Your task to perform on an android device: Open Yahoo.com Image 0: 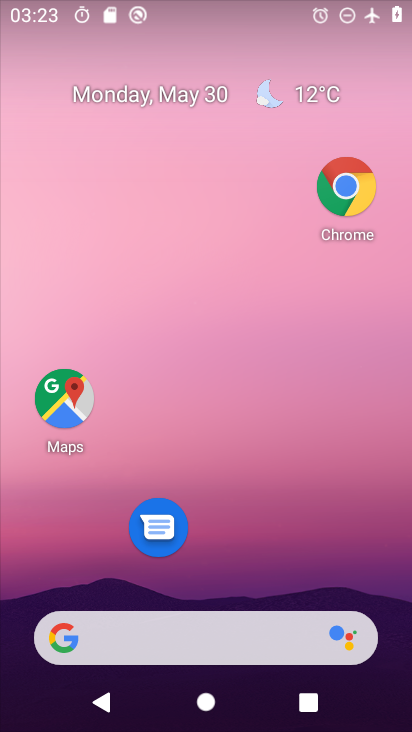
Step 0: drag from (295, 471) to (366, 33)
Your task to perform on an android device: Open Yahoo.com Image 1: 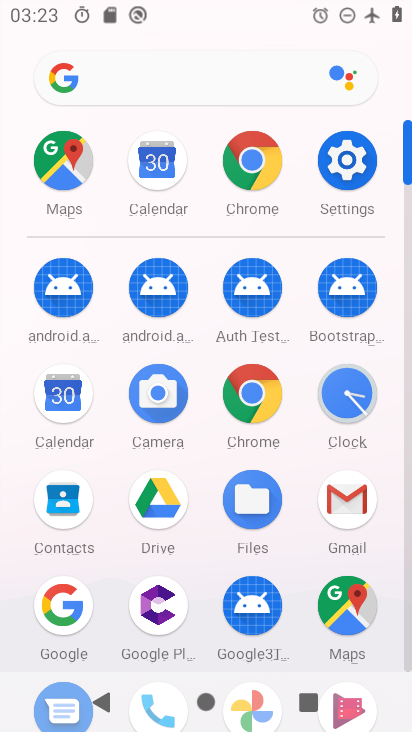
Step 1: click (129, 69)
Your task to perform on an android device: Open Yahoo.com Image 2: 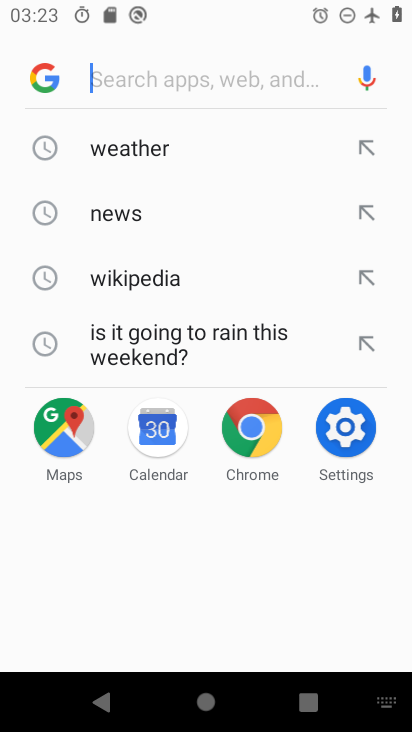
Step 2: type "Yahoo.com"
Your task to perform on an android device: Open Yahoo.com Image 3: 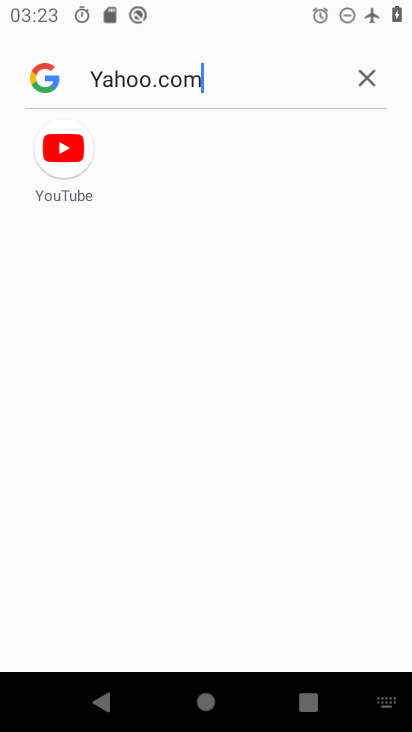
Step 3: type ""
Your task to perform on an android device: Open Yahoo.com Image 4: 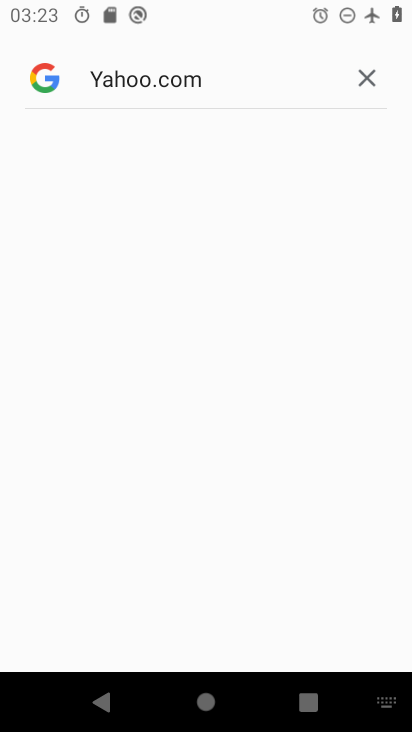
Step 4: click (161, 173)
Your task to perform on an android device: Open Yahoo.com Image 5: 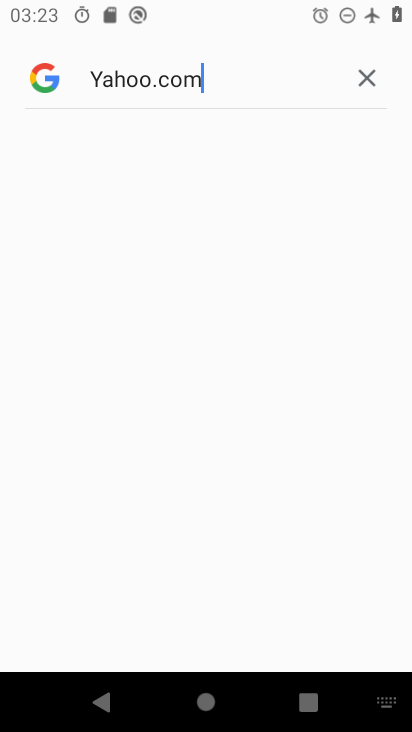
Step 5: task complete